Your task to perform on an android device: Turn off the flashlight Image 0: 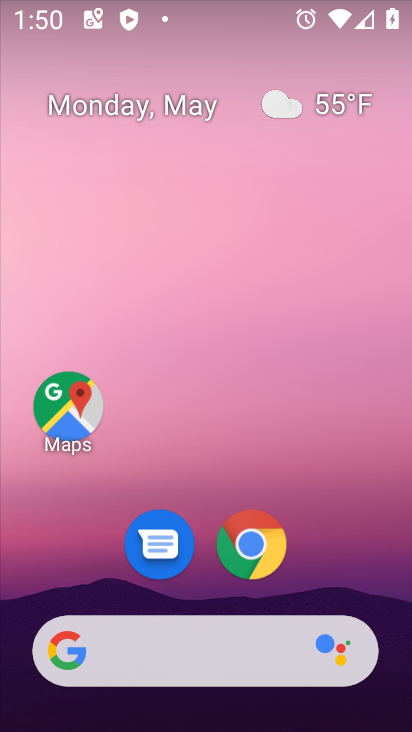
Step 0: drag from (229, 8) to (281, 599)
Your task to perform on an android device: Turn off the flashlight Image 1: 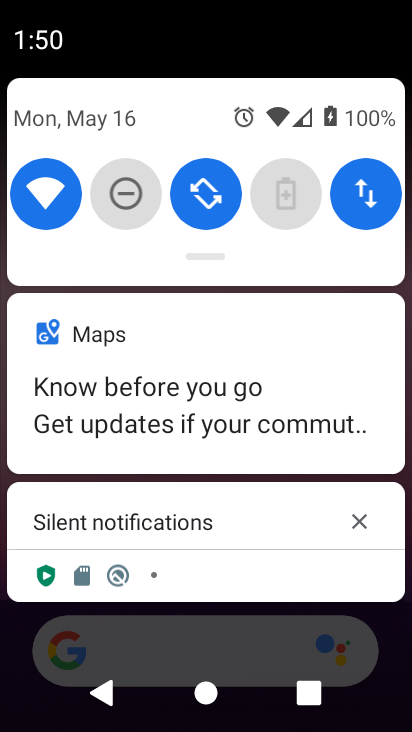
Step 1: drag from (204, 254) to (237, 596)
Your task to perform on an android device: Turn off the flashlight Image 2: 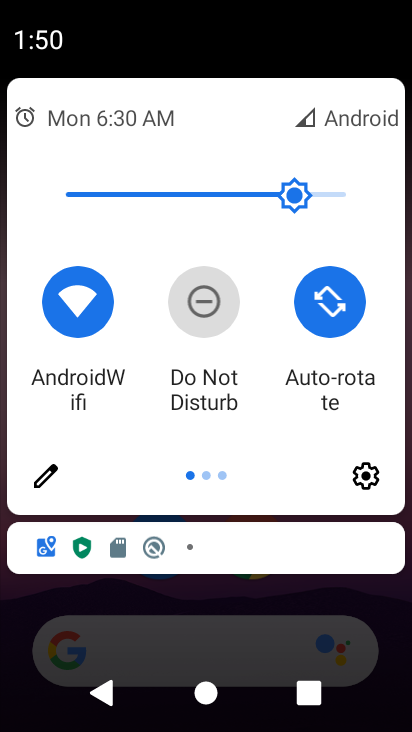
Step 2: click (50, 480)
Your task to perform on an android device: Turn off the flashlight Image 3: 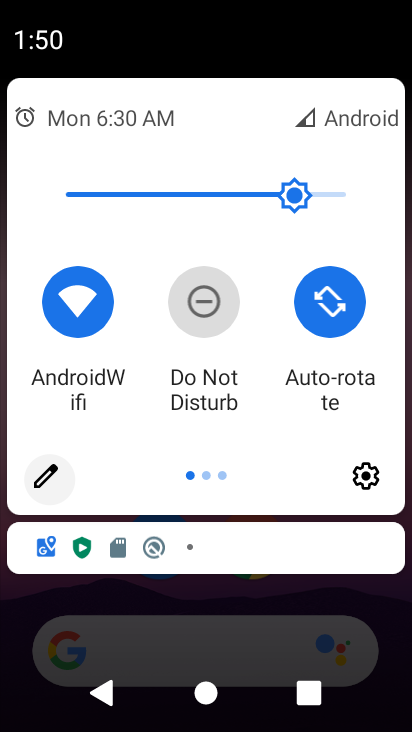
Step 3: click (50, 480)
Your task to perform on an android device: Turn off the flashlight Image 4: 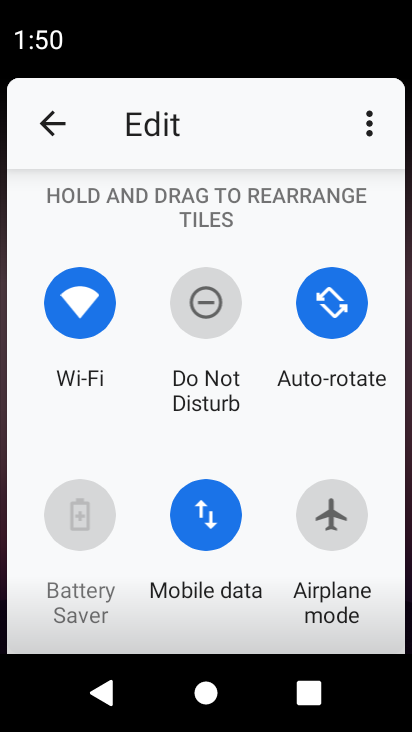
Step 4: task complete